Your task to perform on an android device: Search for pizza restaurants on Maps Image 0: 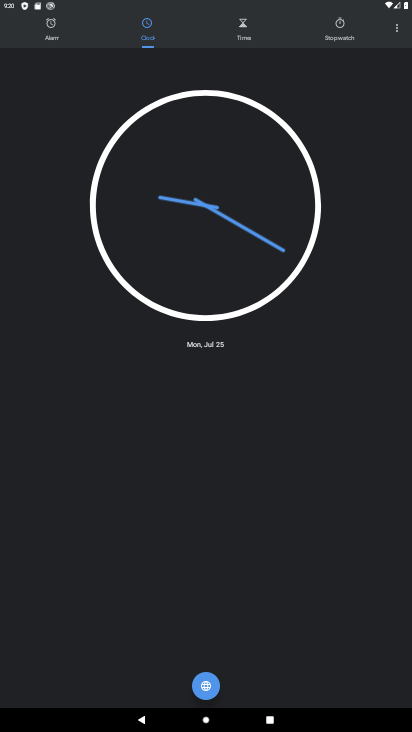
Step 0: press home button
Your task to perform on an android device: Search for pizza restaurants on Maps Image 1: 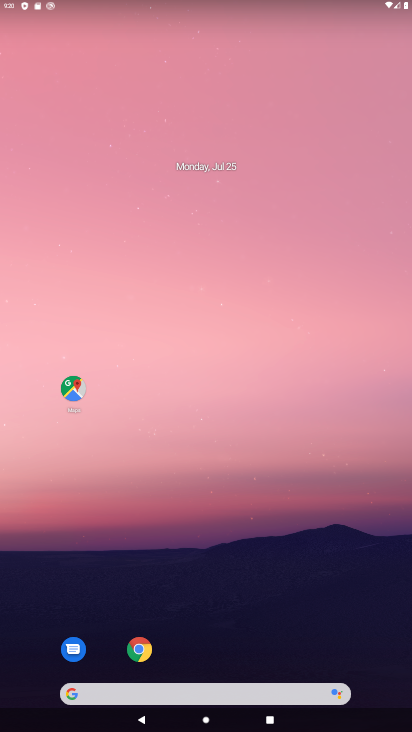
Step 1: drag from (247, 461) to (258, 11)
Your task to perform on an android device: Search for pizza restaurants on Maps Image 2: 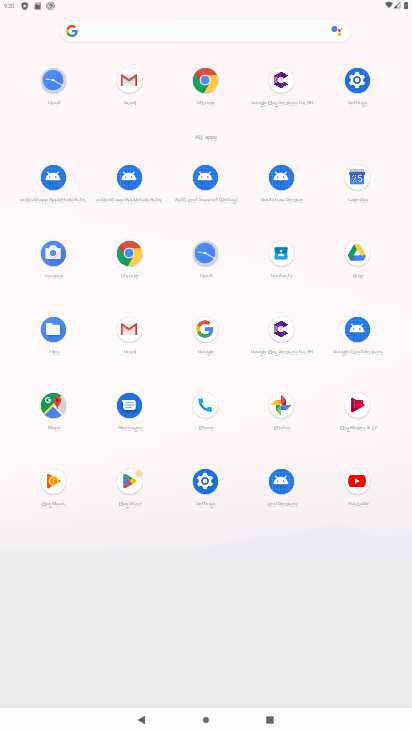
Step 2: click (45, 407)
Your task to perform on an android device: Search for pizza restaurants on Maps Image 3: 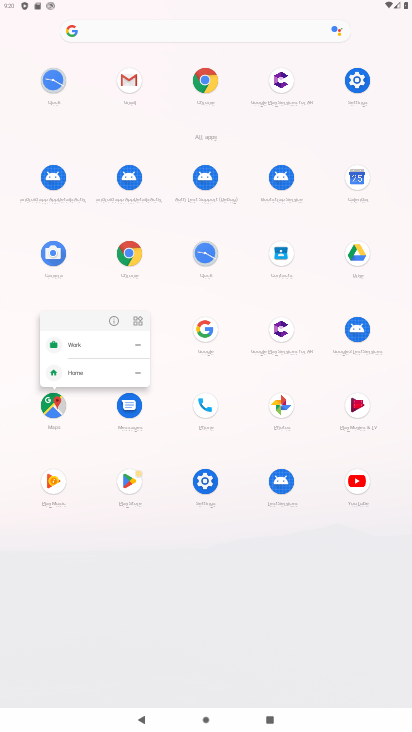
Step 3: click (56, 408)
Your task to perform on an android device: Search for pizza restaurants on Maps Image 4: 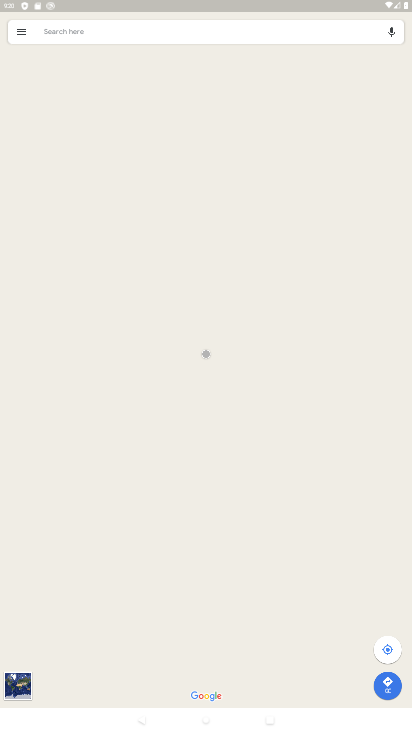
Step 4: click (133, 30)
Your task to perform on an android device: Search for pizza restaurants on Maps Image 5: 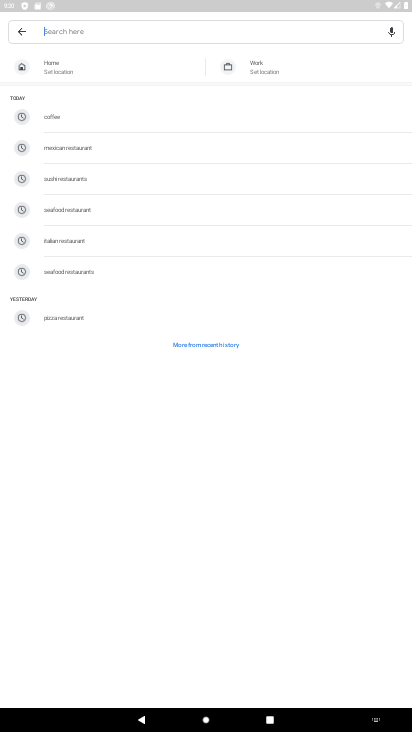
Step 5: click (73, 316)
Your task to perform on an android device: Search for pizza restaurants on Maps Image 6: 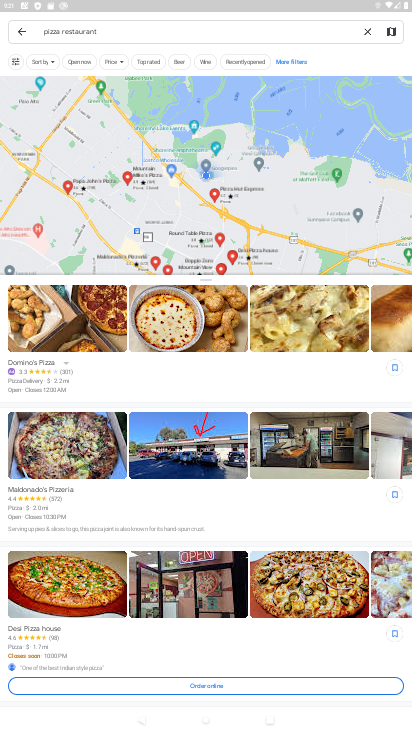
Step 6: task complete